Your task to perform on an android device: delete location history Image 0: 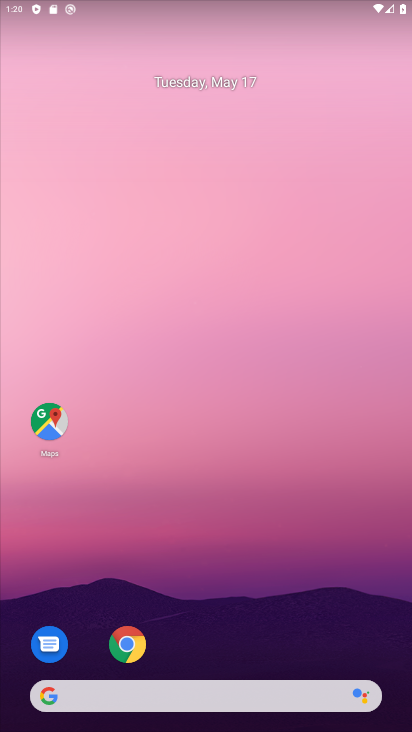
Step 0: click (32, 428)
Your task to perform on an android device: delete location history Image 1: 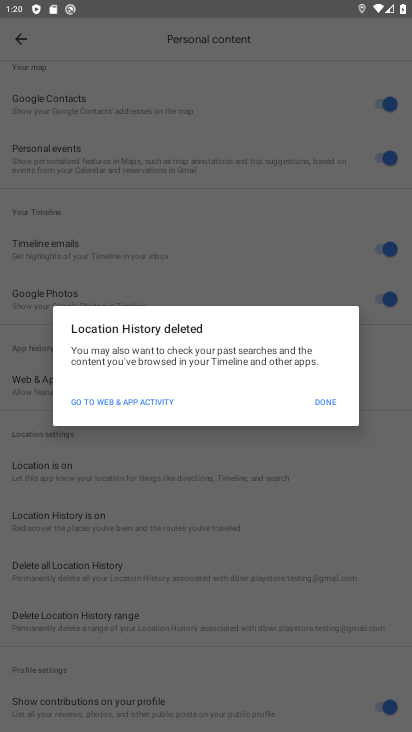
Step 1: click (325, 402)
Your task to perform on an android device: delete location history Image 2: 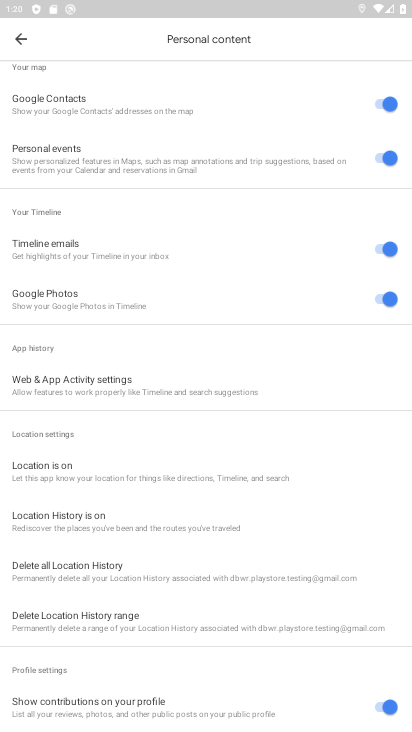
Step 2: click (148, 572)
Your task to perform on an android device: delete location history Image 3: 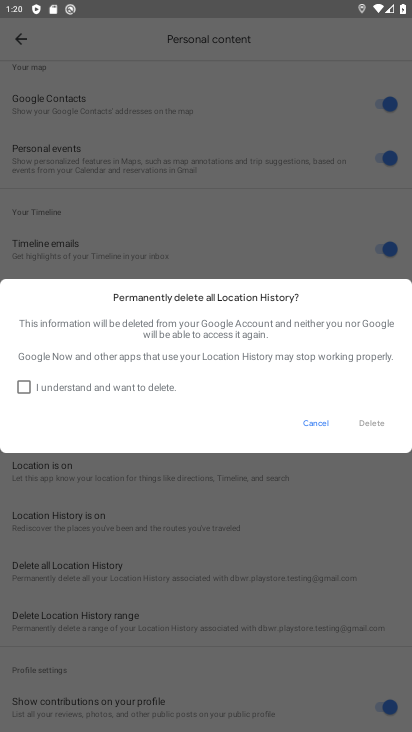
Step 3: click (104, 391)
Your task to perform on an android device: delete location history Image 4: 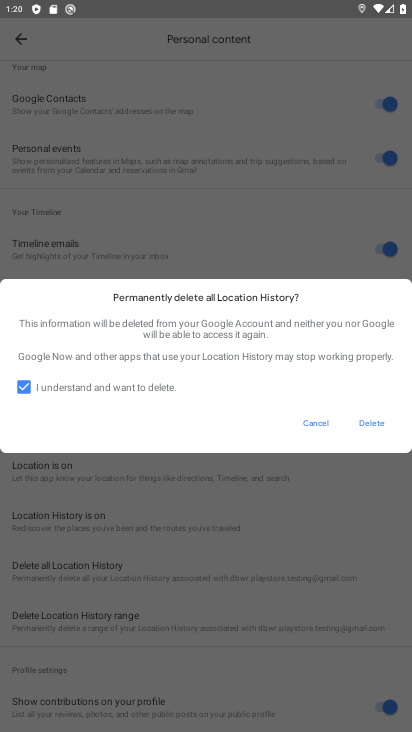
Step 4: click (384, 421)
Your task to perform on an android device: delete location history Image 5: 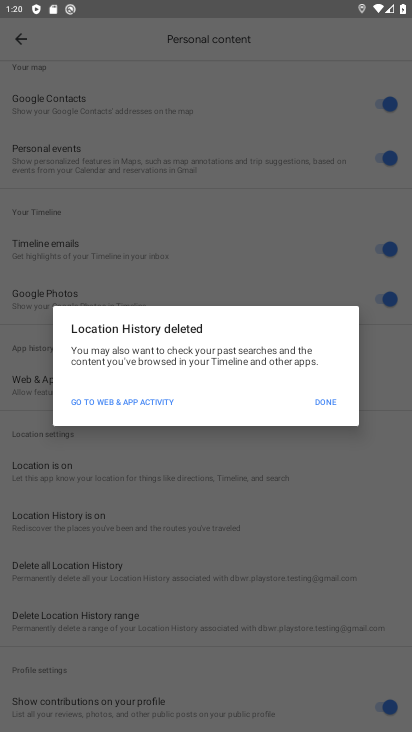
Step 5: click (324, 407)
Your task to perform on an android device: delete location history Image 6: 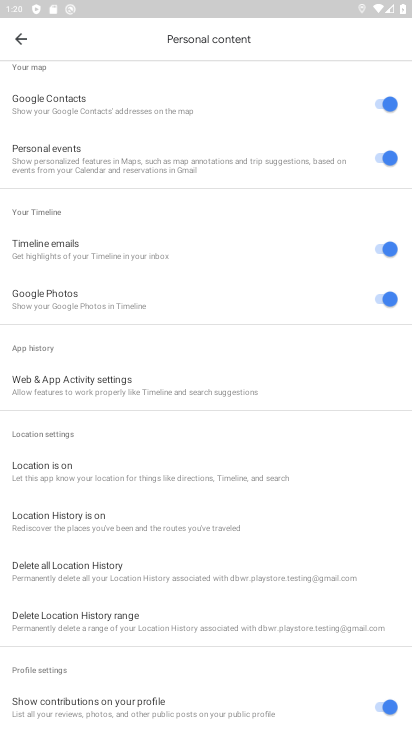
Step 6: task complete